Your task to perform on an android device: see sites visited before in the chrome app Image 0: 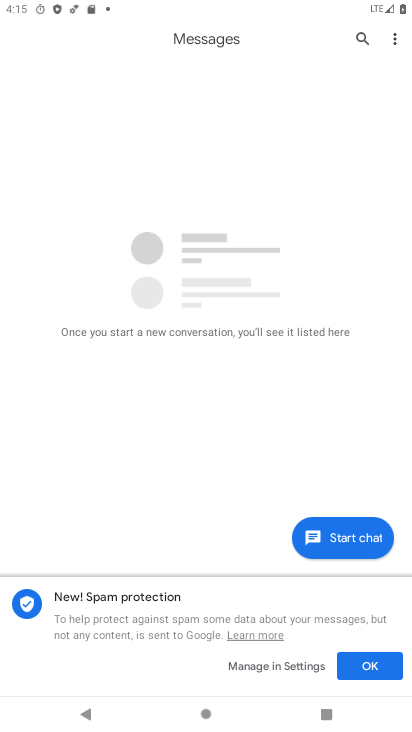
Step 0: drag from (152, 611) to (124, 8)
Your task to perform on an android device: see sites visited before in the chrome app Image 1: 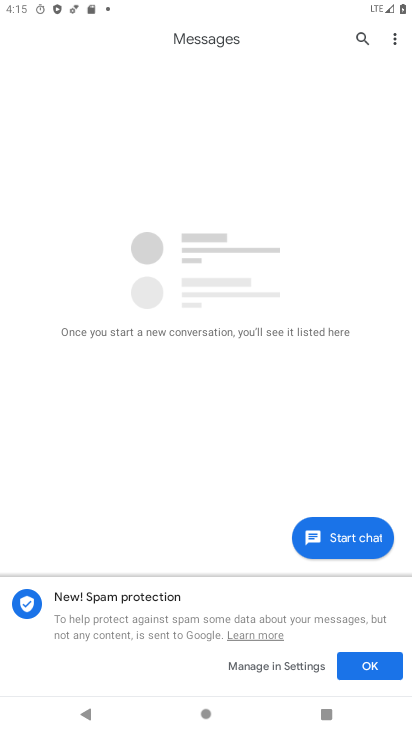
Step 1: press home button
Your task to perform on an android device: see sites visited before in the chrome app Image 2: 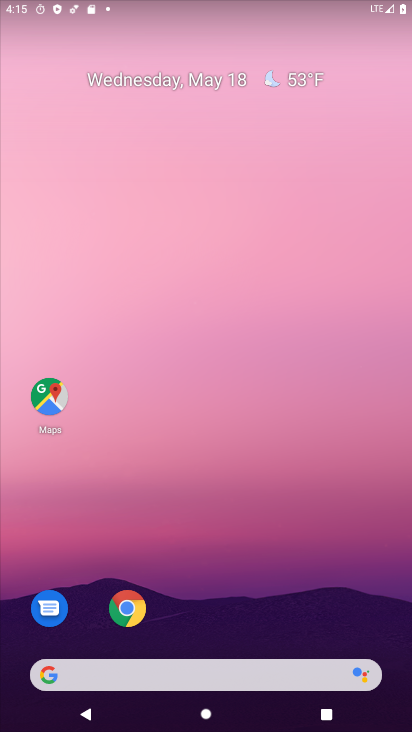
Step 2: drag from (164, 674) to (174, 106)
Your task to perform on an android device: see sites visited before in the chrome app Image 3: 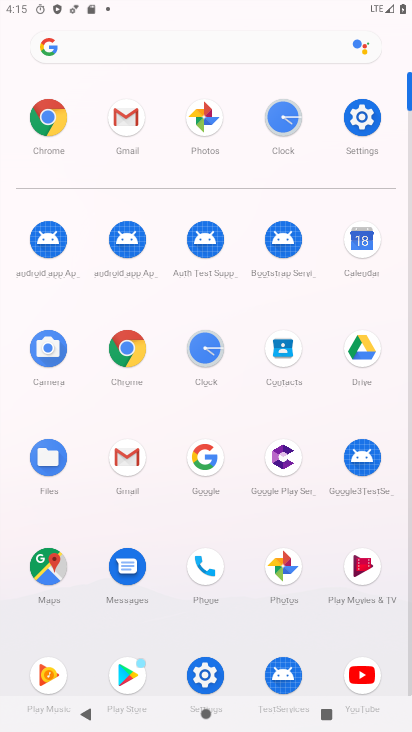
Step 3: click (124, 357)
Your task to perform on an android device: see sites visited before in the chrome app Image 4: 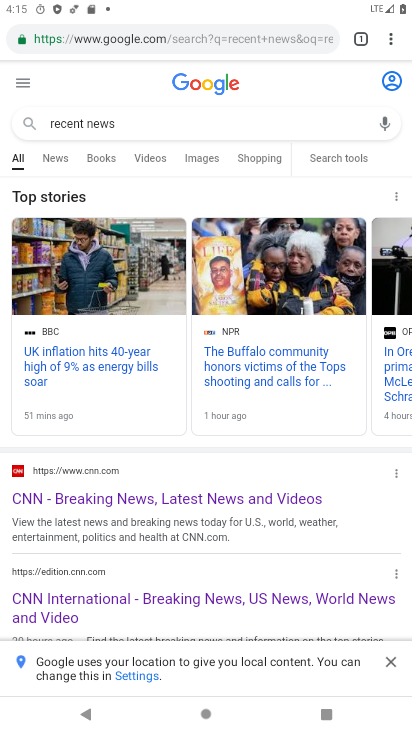
Step 4: click (394, 41)
Your task to perform on an android device: see sites visited before in the chrome app Image 5: 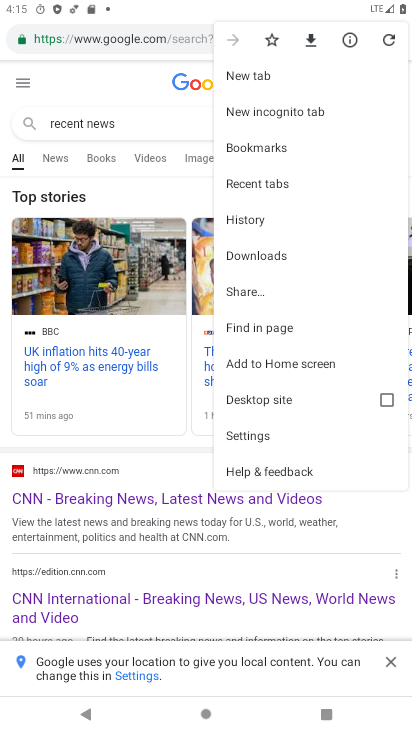
Step 5: click (256, 179)
Your task to perform on an android device: see sites visited before in the chrome app Image 6: 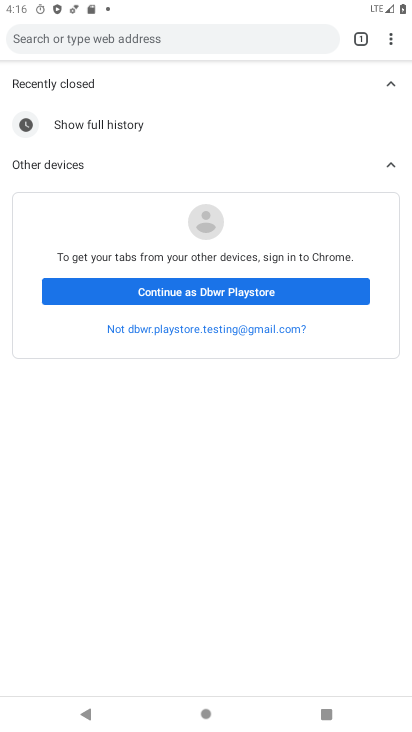
Step 6: task complete